Your task to perform on an android device: What's on my calendar today? Image 0: 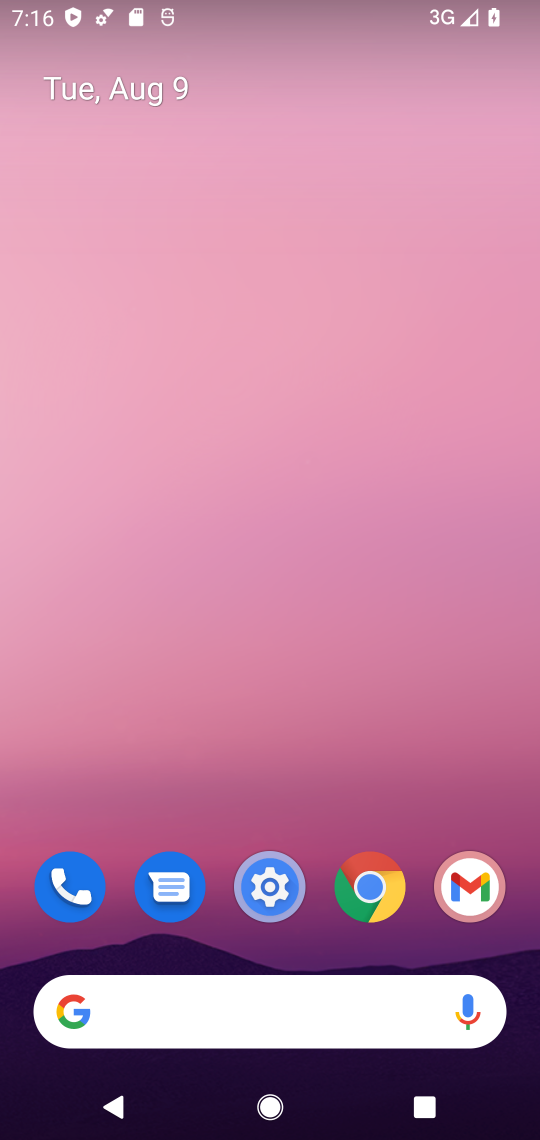
Step 0: drag from (329, 759) to (309, 47)
Your task to perform on an android device: What's on my calendar today? Image 1: 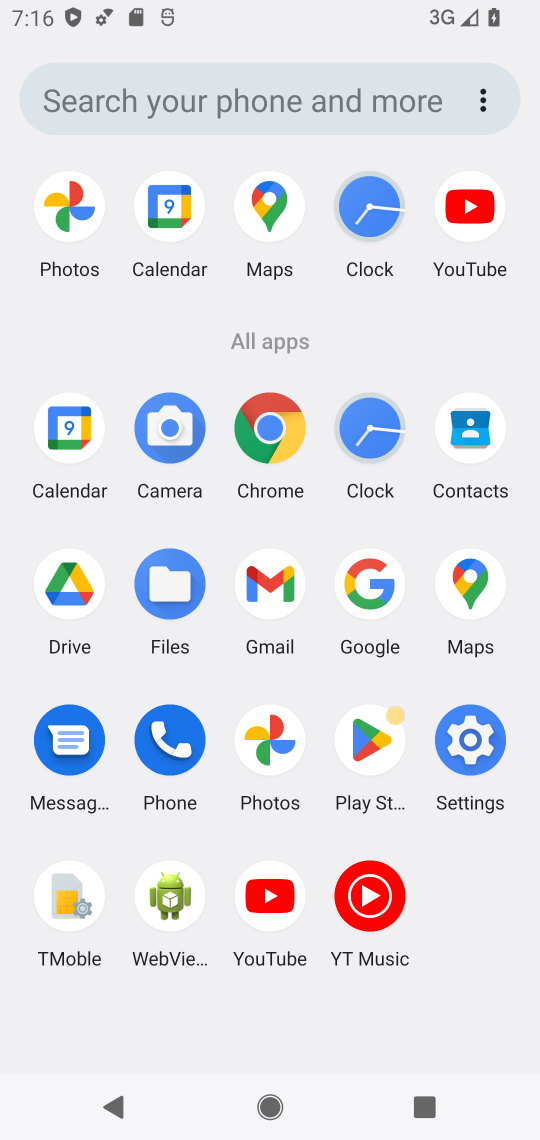
Step 1: click (183, 197)
Your task to perform on an android device: What's on my calendar today? Image 2: 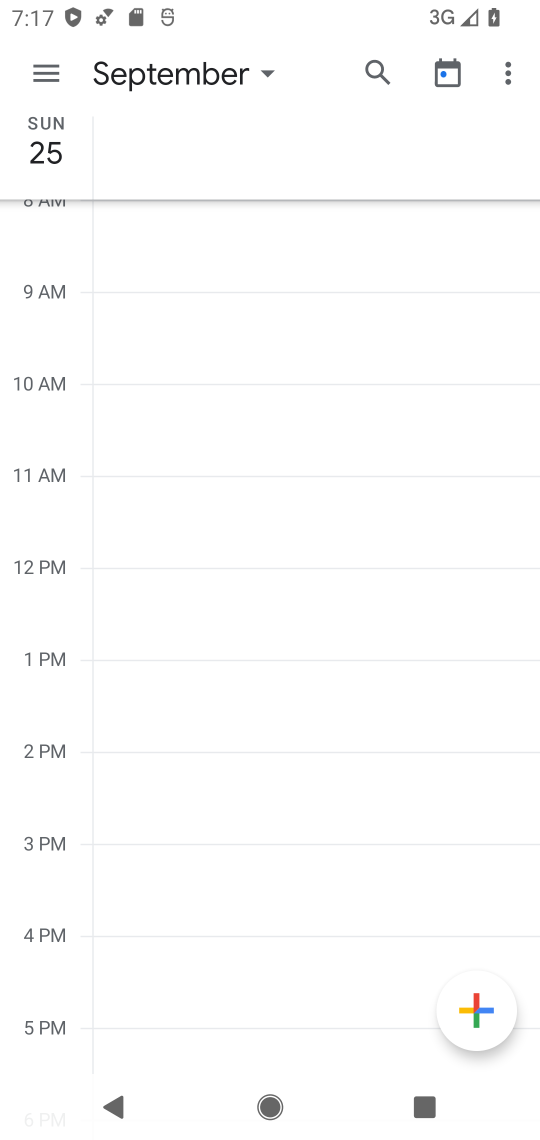
Step 2: task complete